Your task to perform on an android device: open sync settings in chrome Image 0: 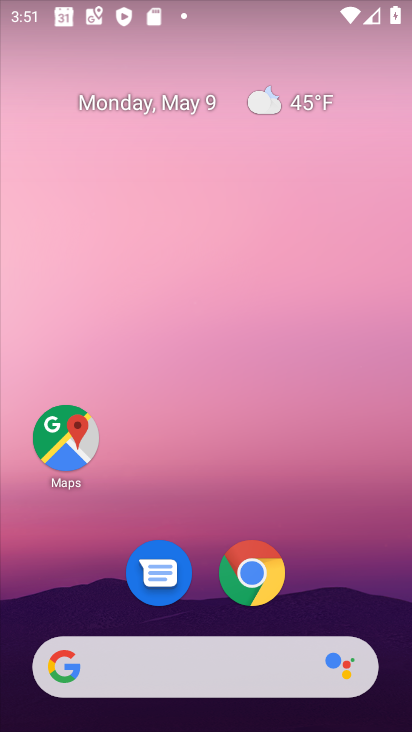
Step 0: click (253, 575)
Your task to perform on an android device: open sync settings in chrome Image 1: 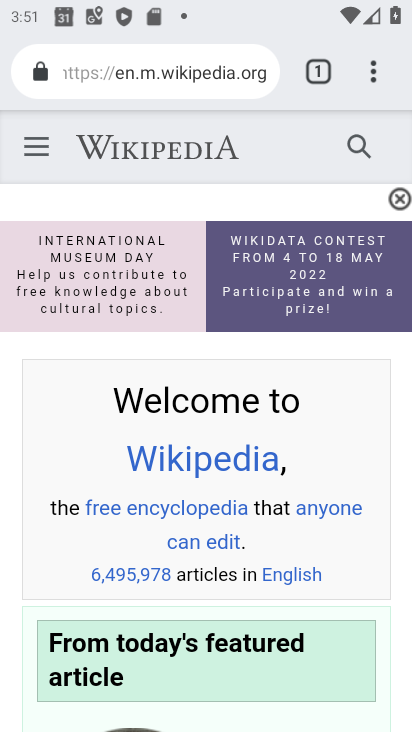
Step 1: click (378, 73)
Your task to perform on an android device: open sync settings in chrome Image 2: 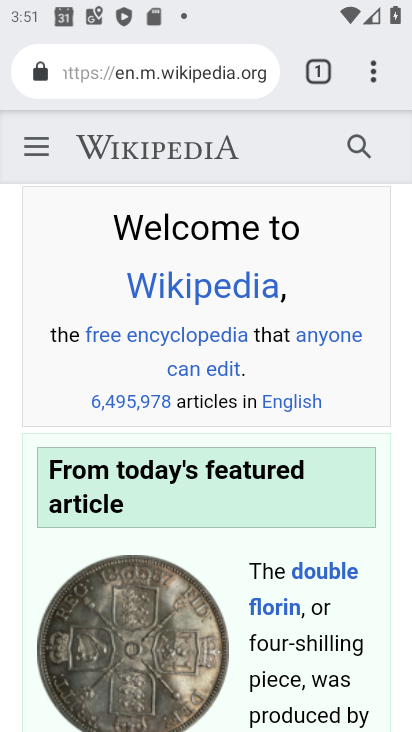
Step 2: drag from (373, 68) to (141, 569)
Your task to perform on an android device: open sync settings in chrome Image 3: 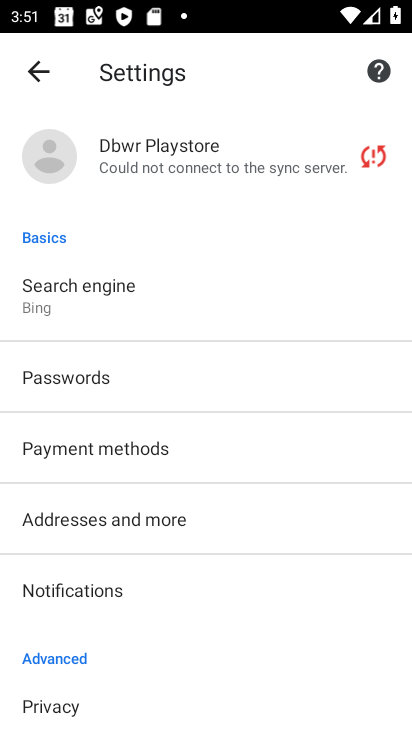
Step 3: click (127, 171)
Your task to perform on an android device: open sync settings in chrome Image 4: 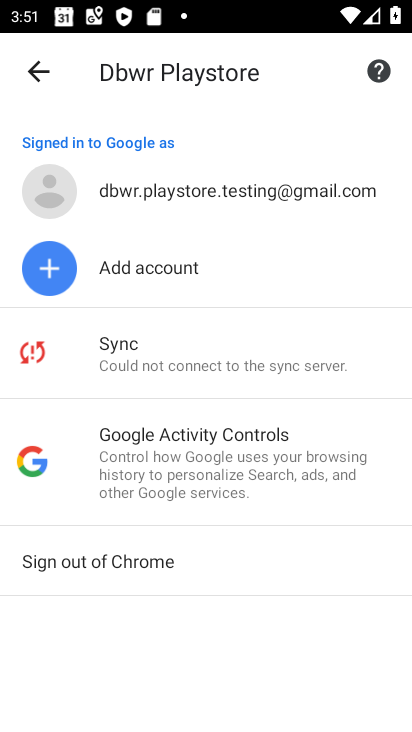
Step 4: click (113, 347)
Your task to perform on an android device: open sync settings in chrome Image 5: 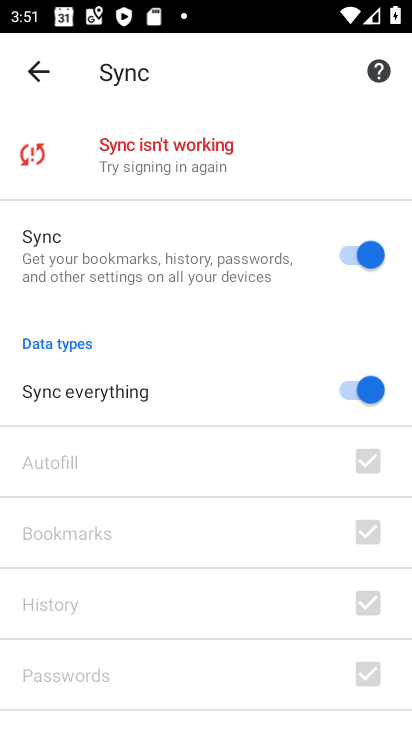
Step 5: task complete